Your task to perform on an android device: turn on airplane mode Image 0: 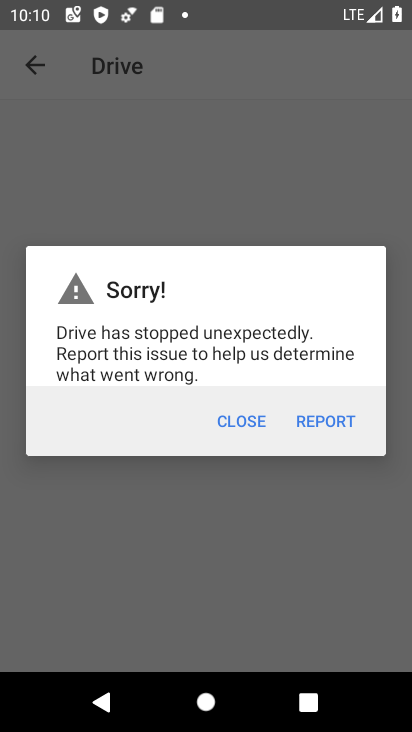
Step 0: press back button
Your task to perform on an android device: turn on airplane mode Image 1: 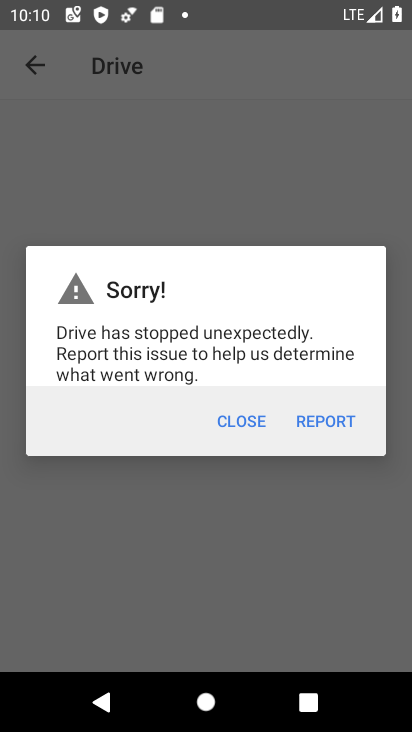
Step 1: press back button
Your task to perform on an android device: turn on airplane mode Image 2: 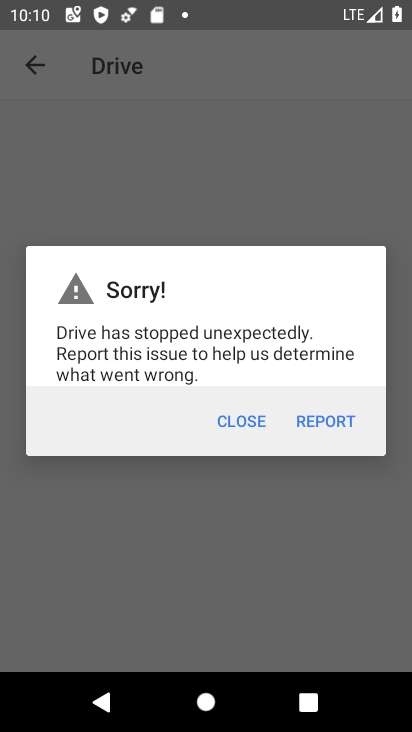
Step 2: press home button
Your task to perform on an android device: turn on airplane mode Image 3: 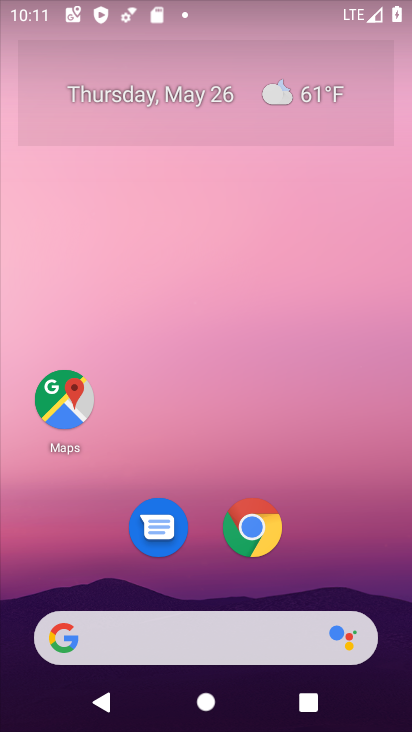
Step 3: drag from (345, 13) to (295, 488)
Your task to perform on an android device: turn on airplane mode Image 4: 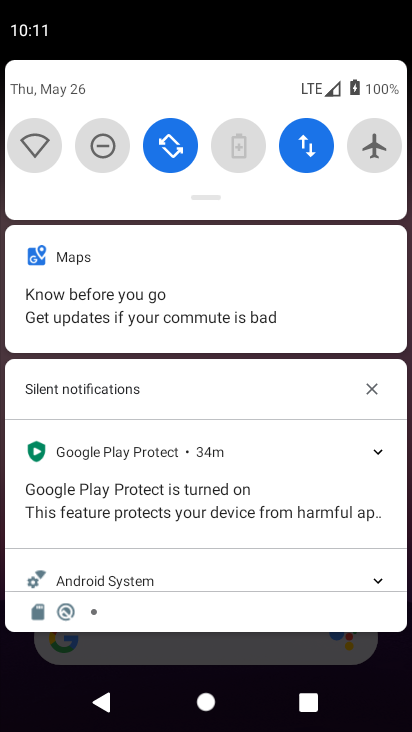
Step 4: click (377, 150)
Your task to perform on an android device: turn on airplane mode Image 5: 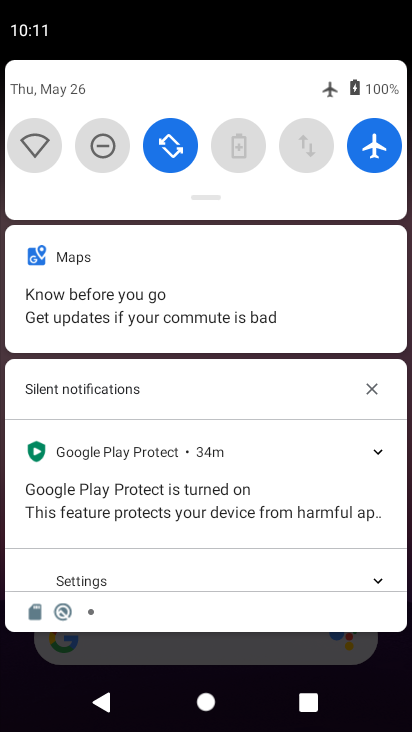
Step 5: task complete